Your task to perform on an android device: turn off translation in the chrome app Image 0: 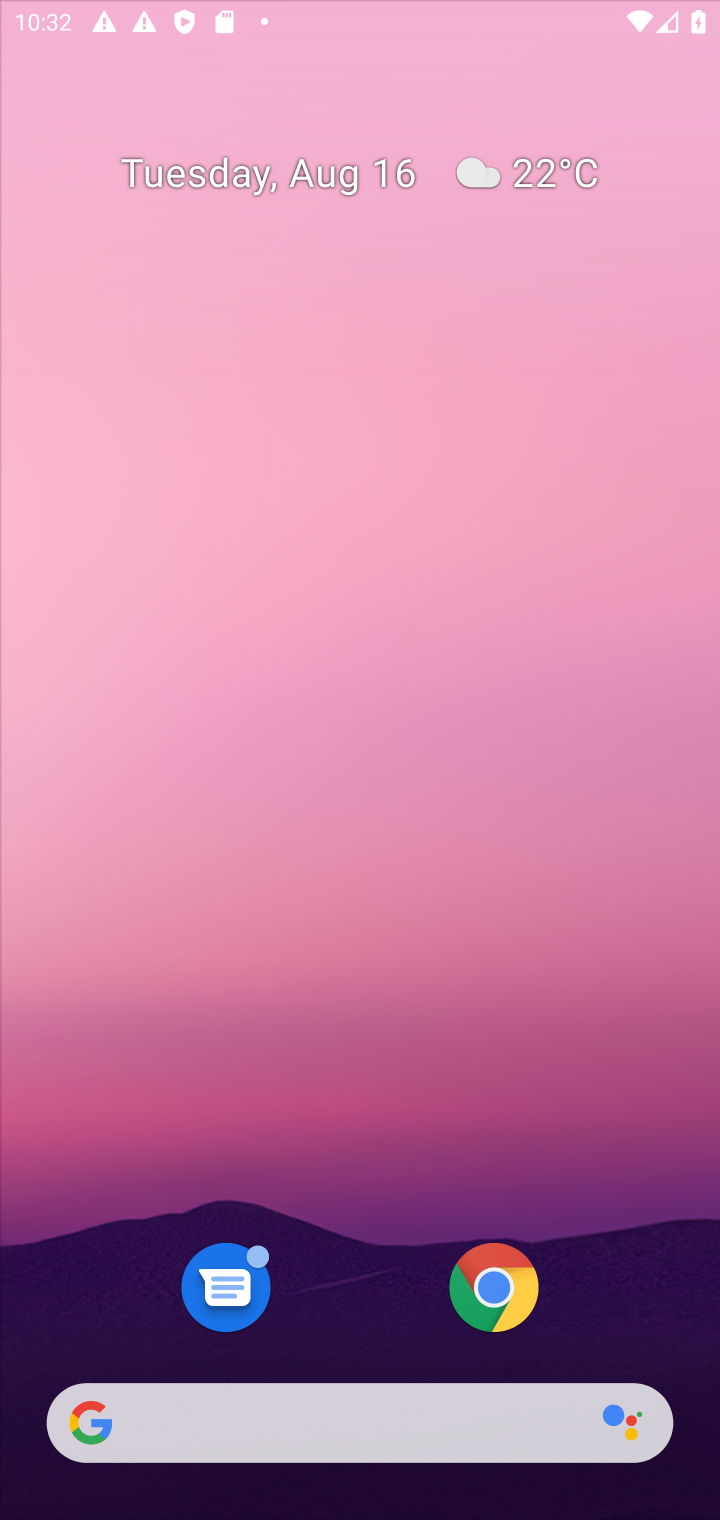
Step 0: press home button
Your task to perform on an android device: turn off translation in the chrome app Image 1: 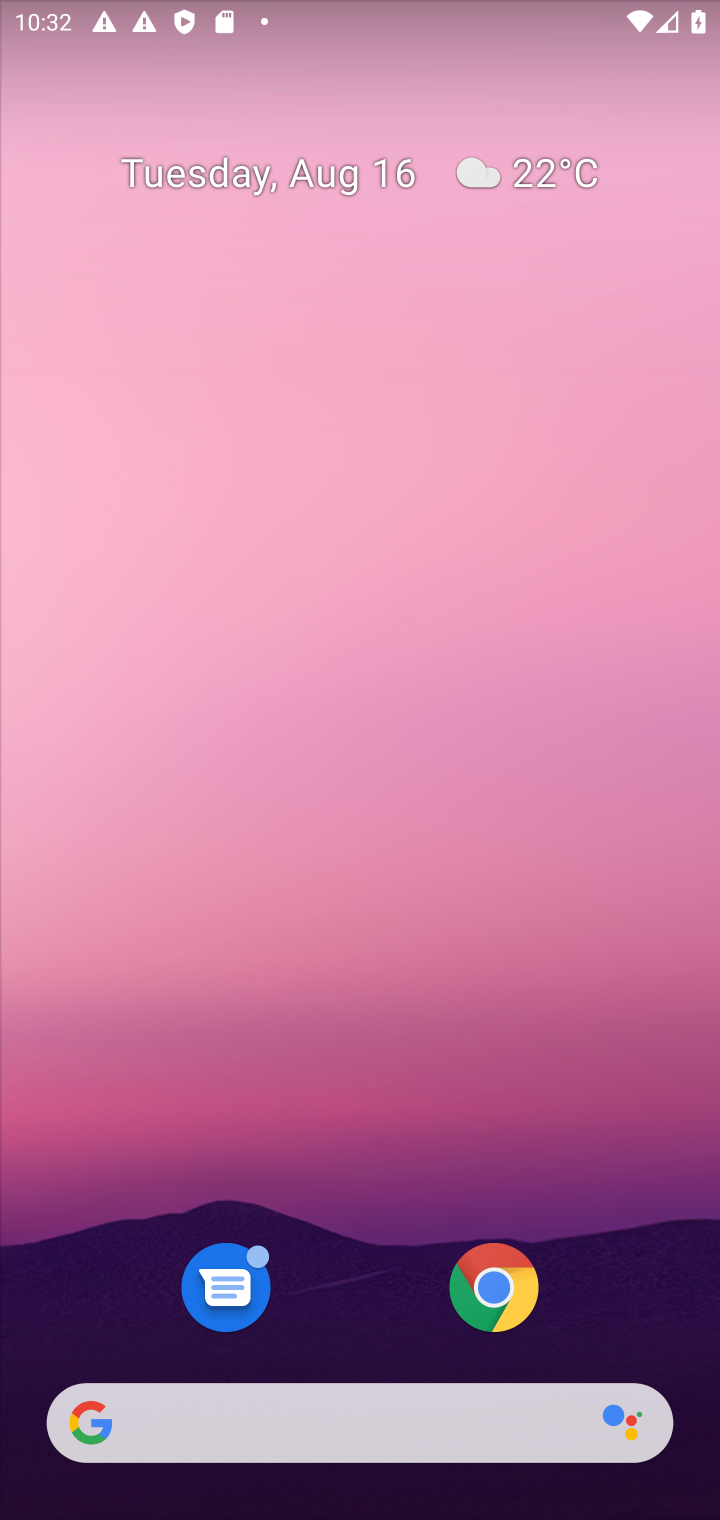
Step 1: click (494, 1293)
Your task to perform on an android device: turn off translation in the chrome app Image 2: 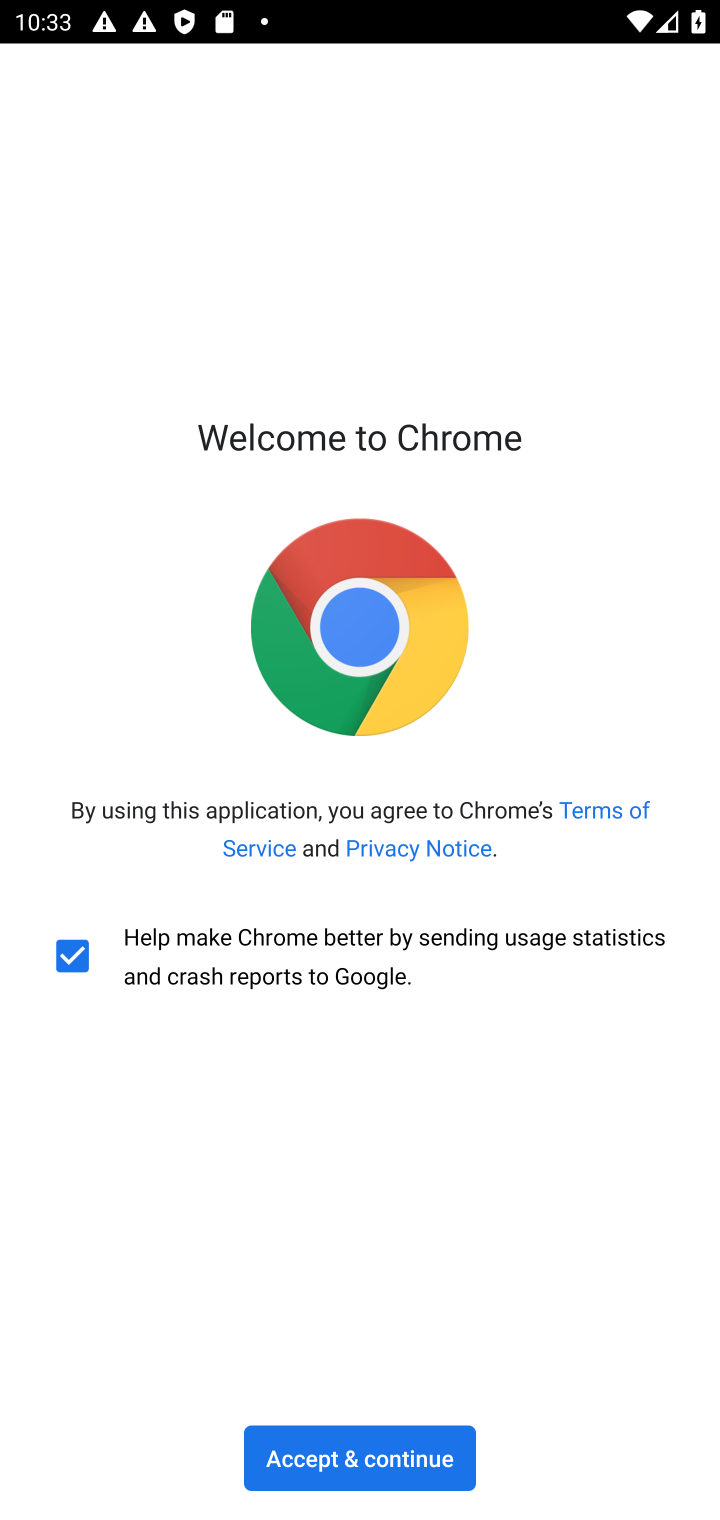
Step 2: click (368, 1458)
Your task to perform on an android device: turn off translation in the chrome app Image 3: 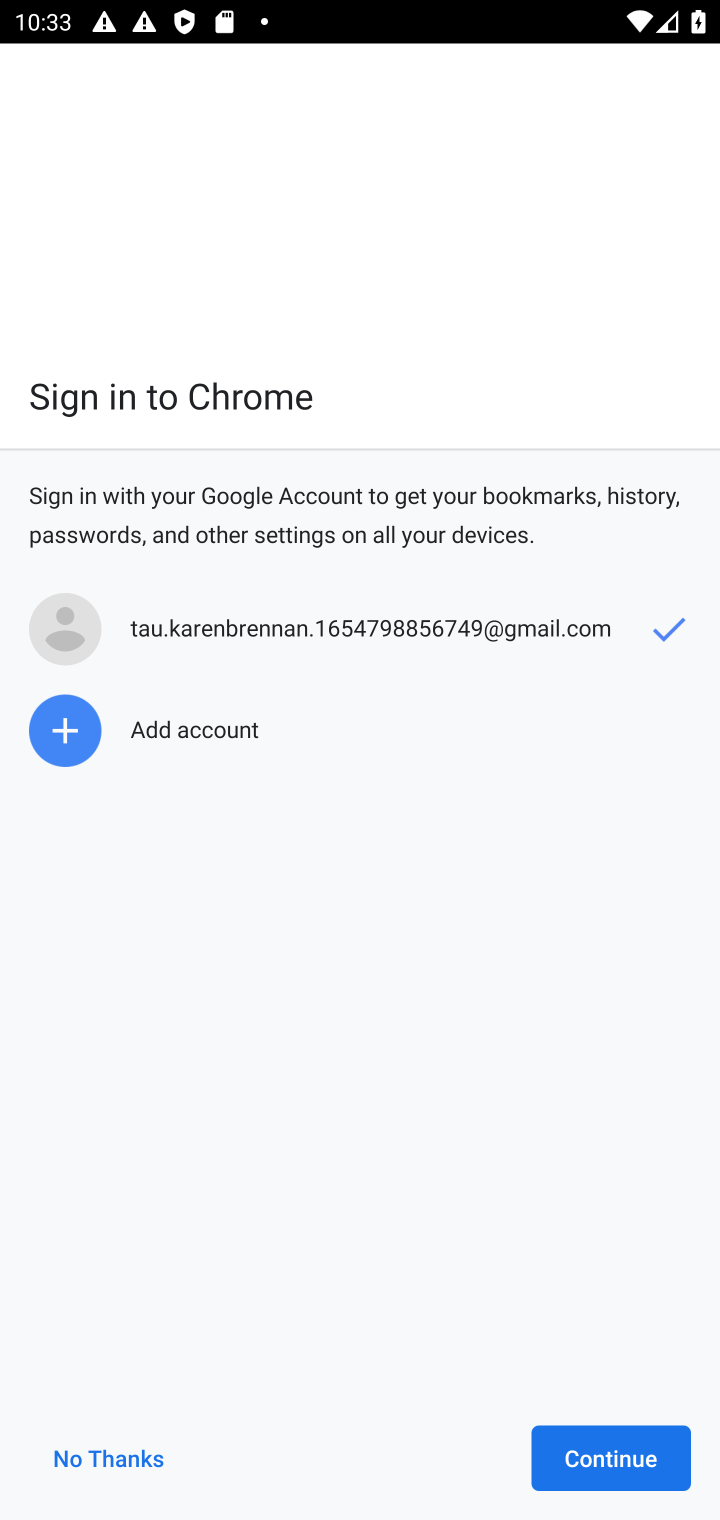
Step 3: click (620, 1462)
Your task to perform on an android device: turn off translation in the chrome app Image 4: 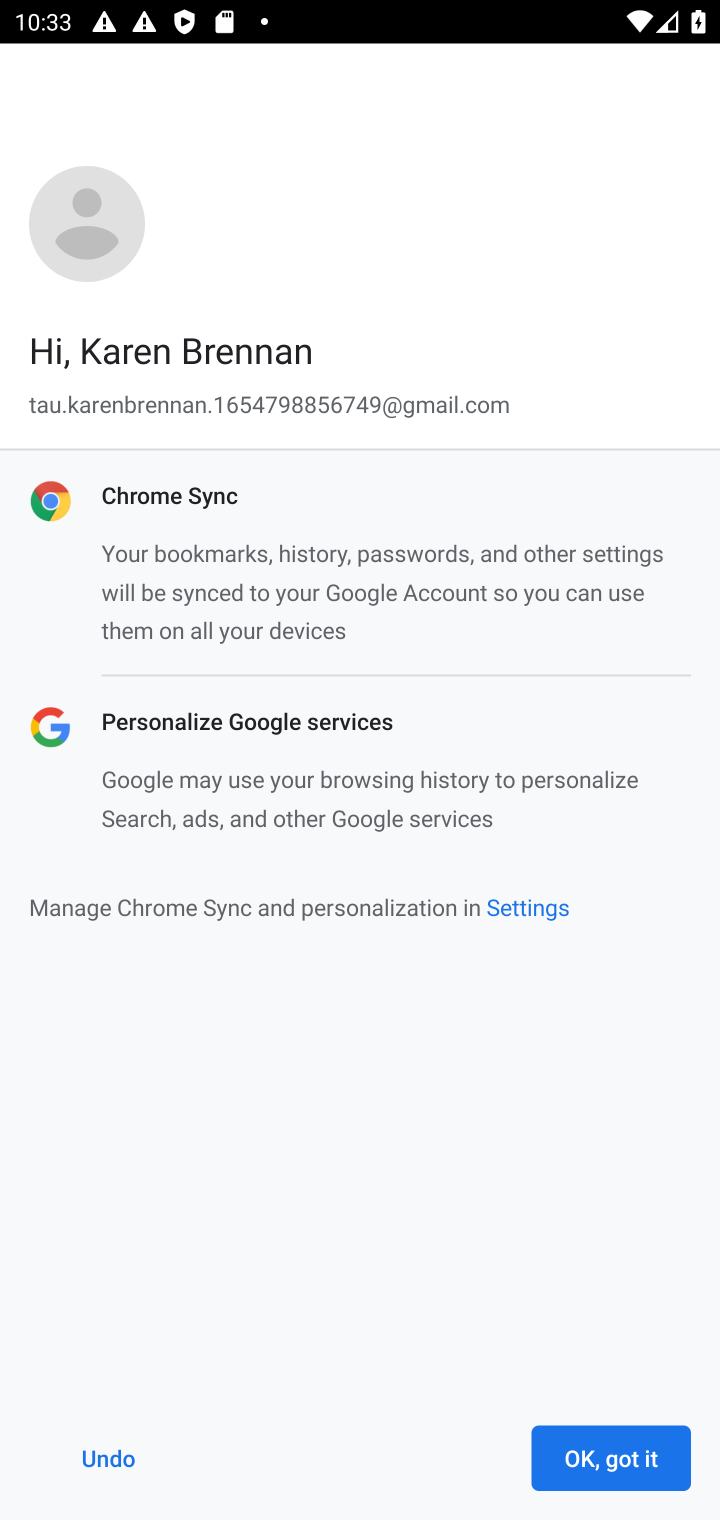
Step 4: click (620, 1462)
Your task to perform on an android device: turn off translation in the chrome app Image 5: 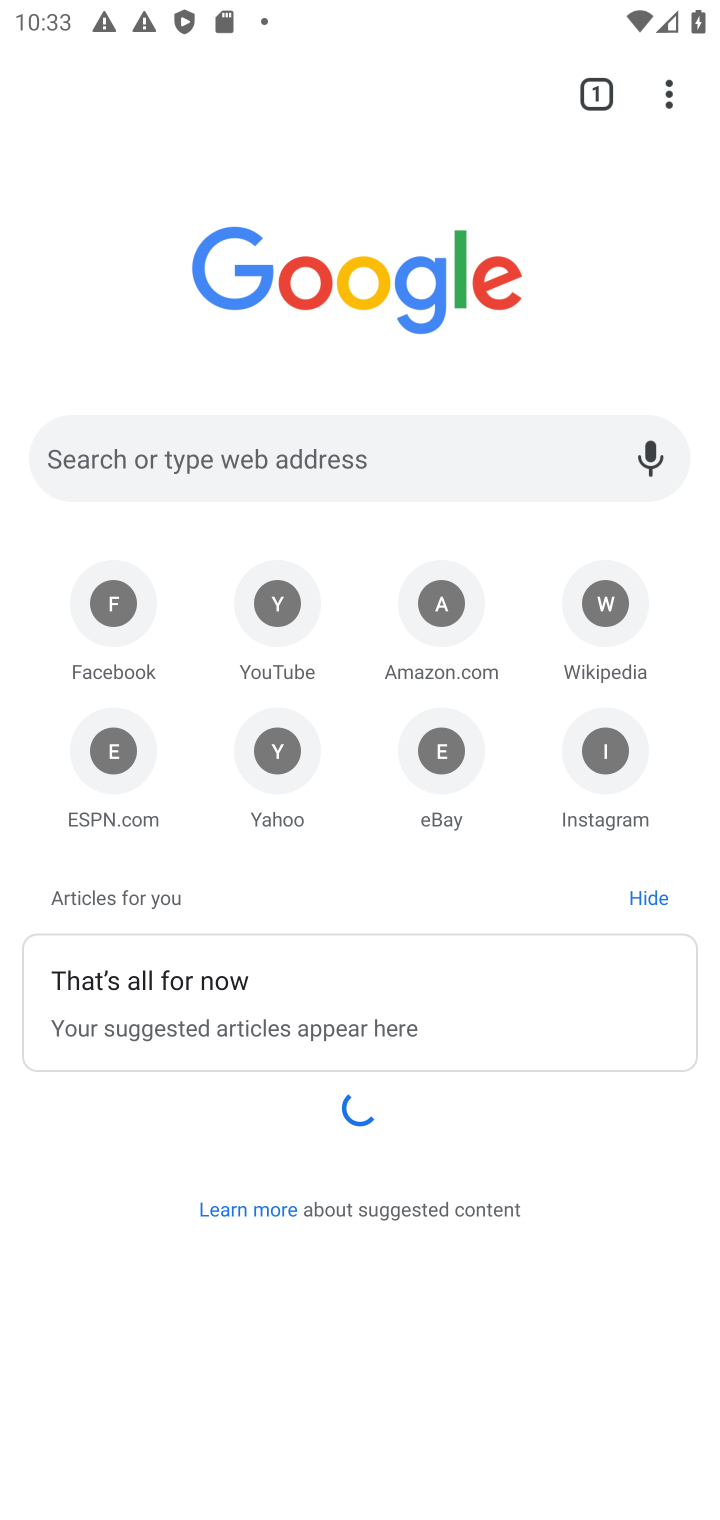
Step 5: click (658, 109)
Your task to perform on an android device: turn off translation in the chrome app Image 6: 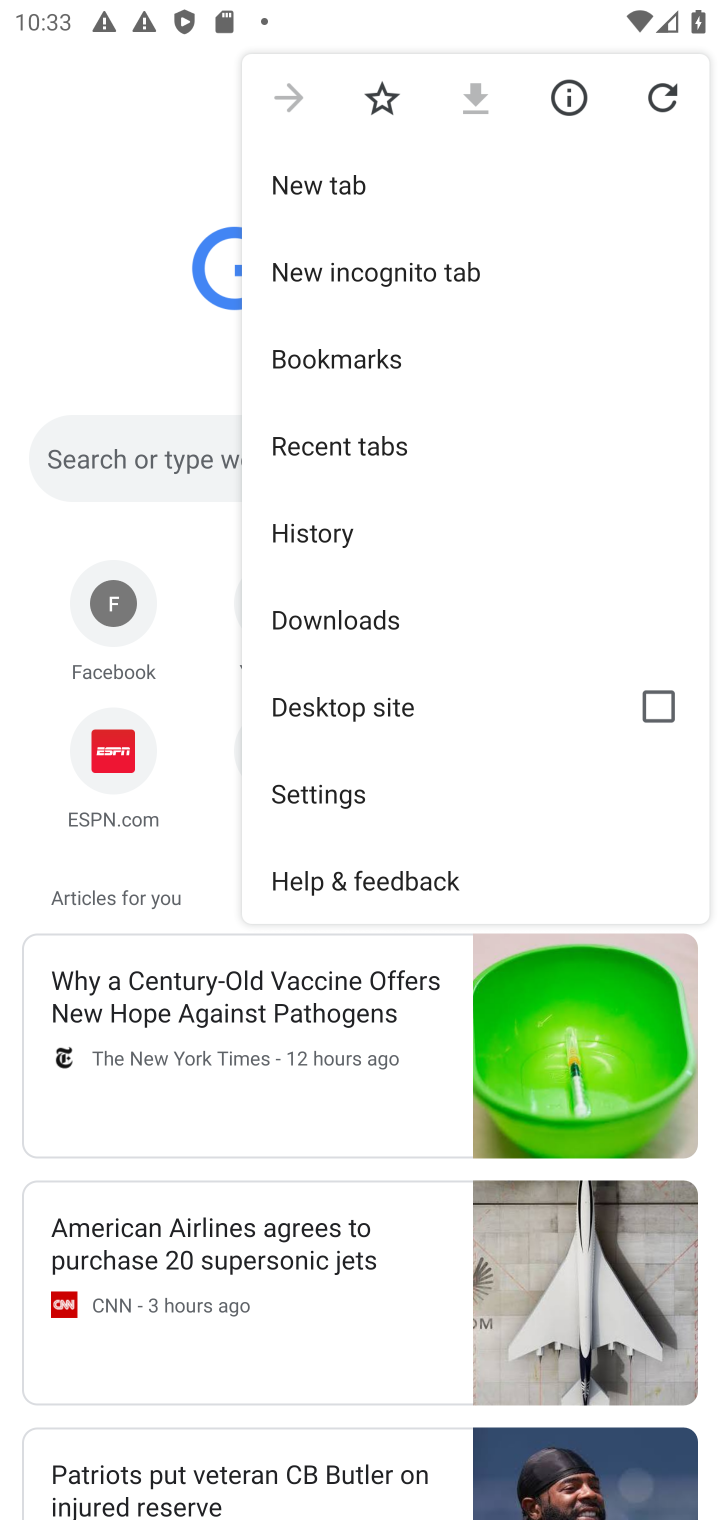
Step 6: click (333, 800)
Your task to perform on an android device: turn off translation in the chrome app Image 7: 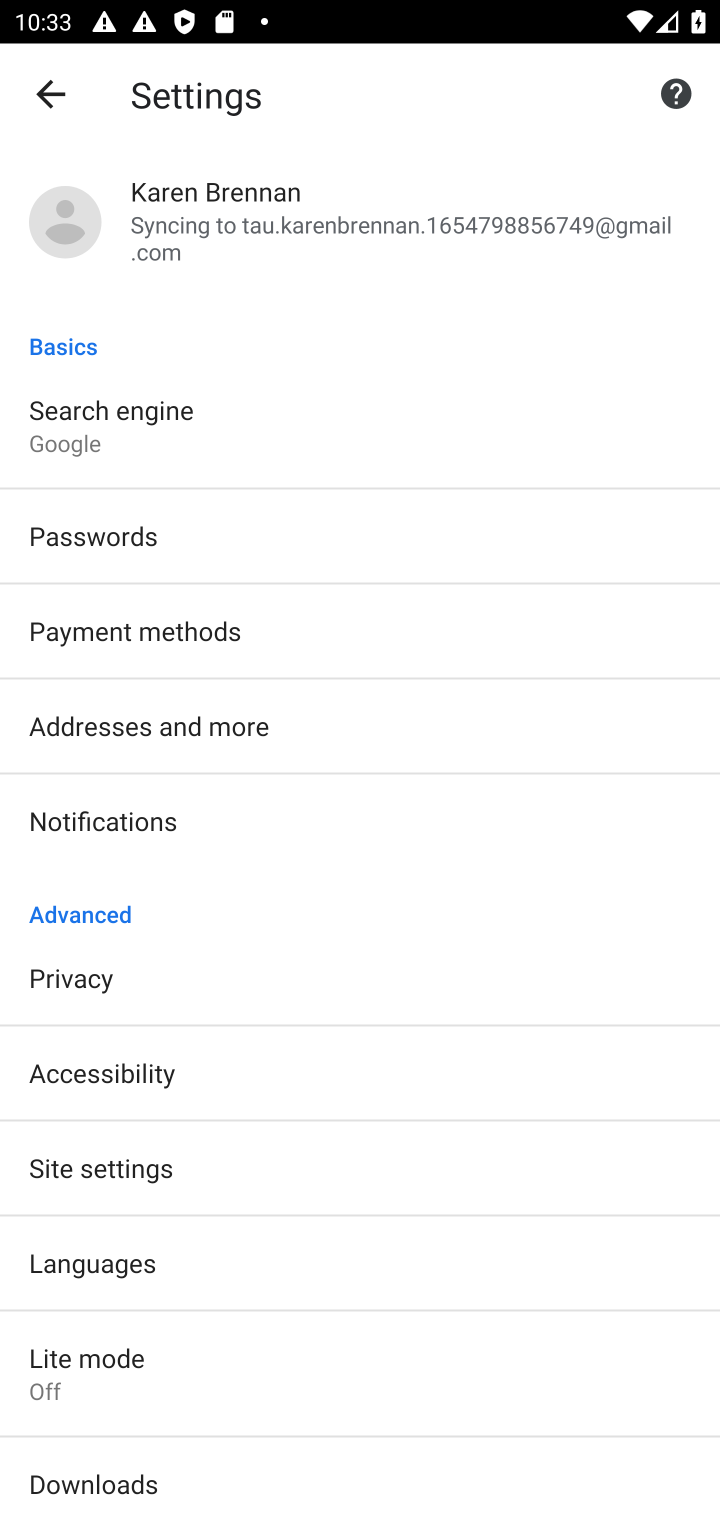
Step 7: click (69, 1268)
Your task to perform on an android device: turn off translation in the chrome app Image 8: 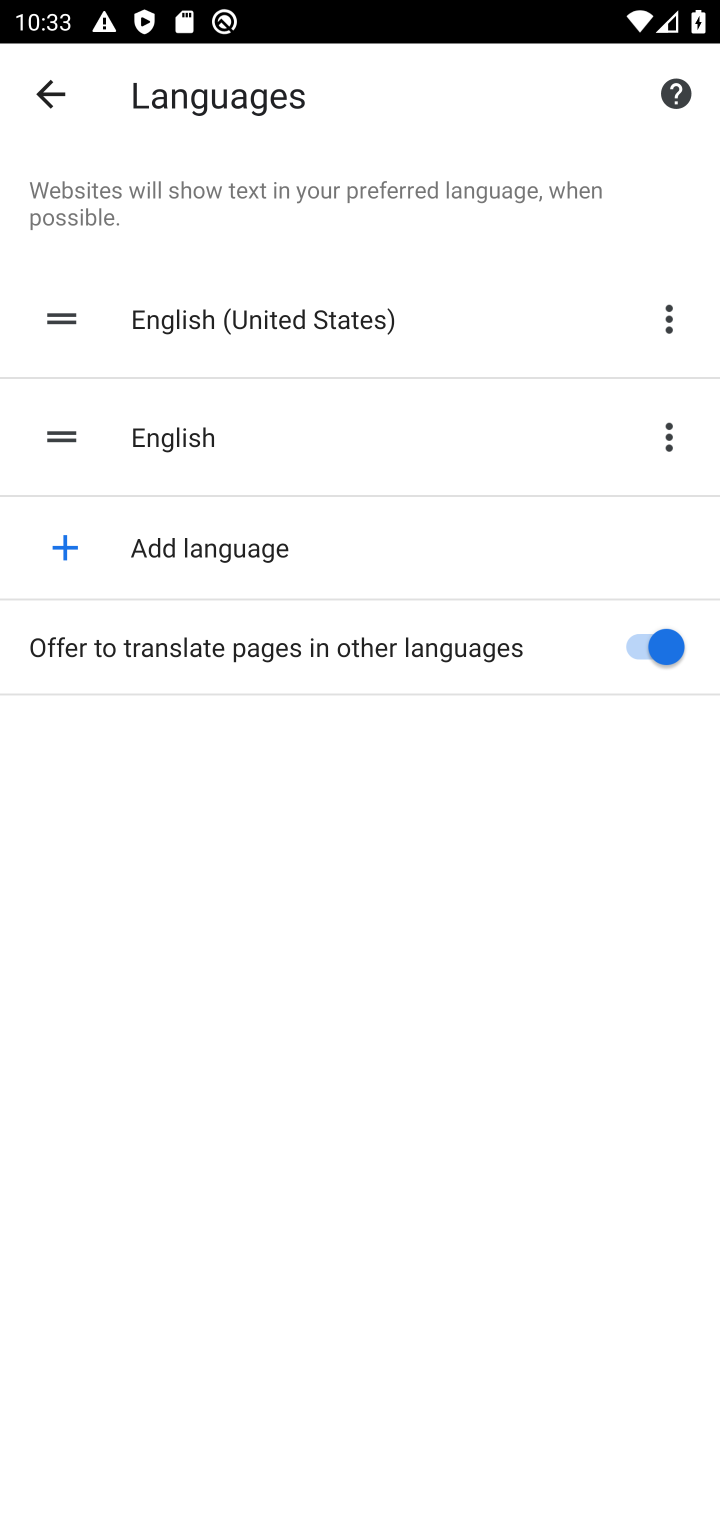
Step 8: click (626, 647)
Your task to perform on an android device: turn off translation in the chrome app Image 9: 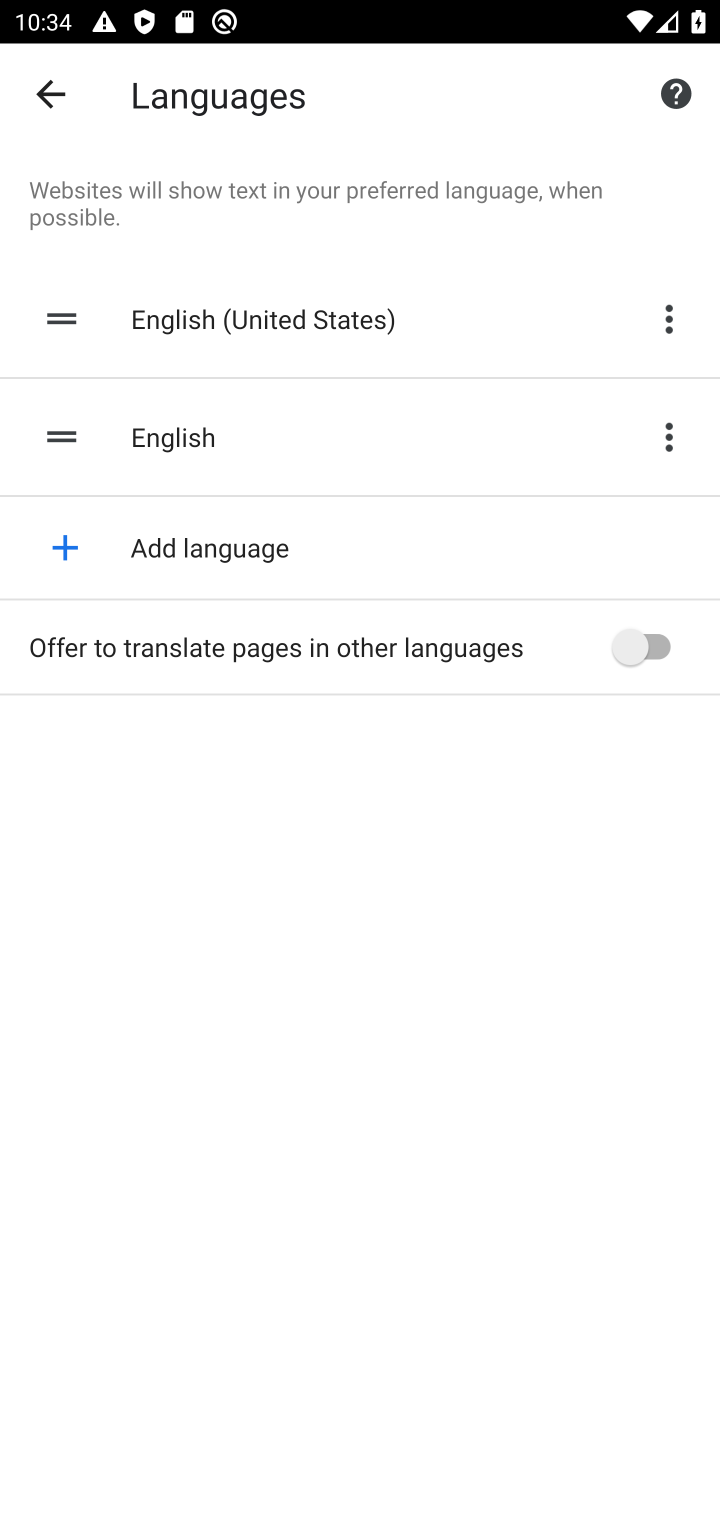
Step 9: task complete